Your task to perform on an android device: change notifications settings Image 0: 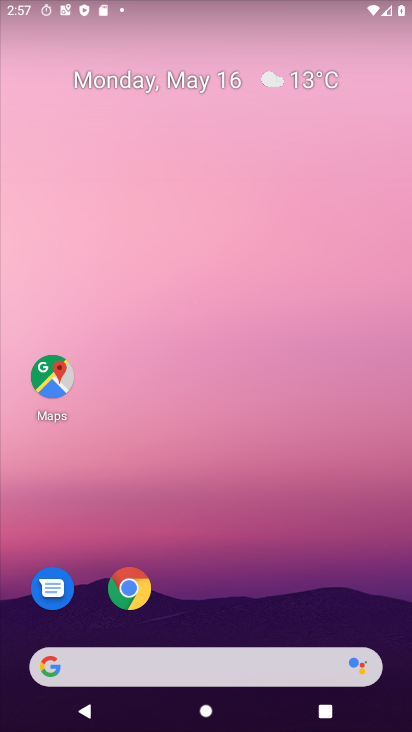
Step 0: drag from (258, 657) to (324, 0)
Your task to perform on an android device: change notifications settings Image 1: 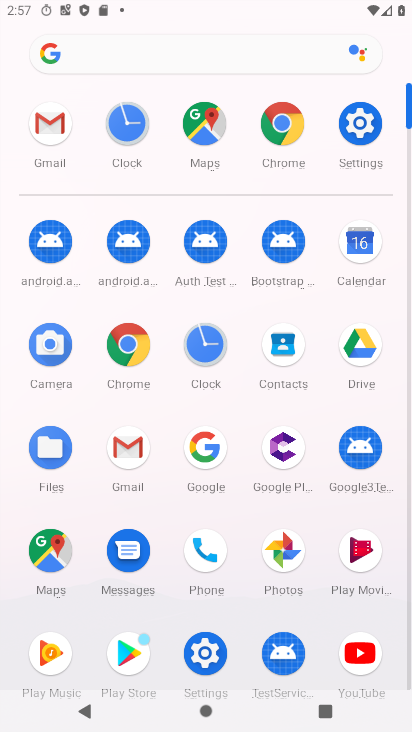
Step 1: click (356, 113)
Your task to perform on an android device: change notifications settings Image 2: 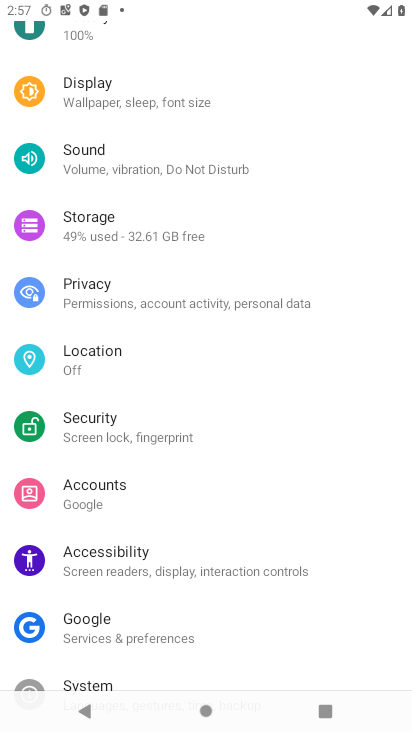
Step 2: drag from (175, 235) to (204, 672)
Your task to perform on an android device: change notifications settings Image 3: 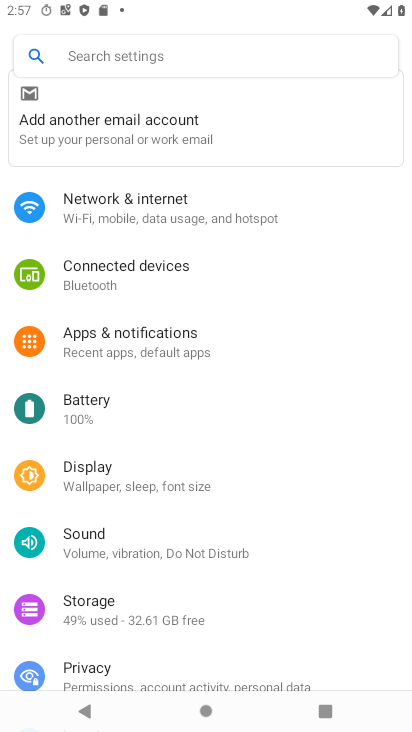
Step 3: click (146, 337)
Your task to perform on an android device: change notifications settings Image 4: 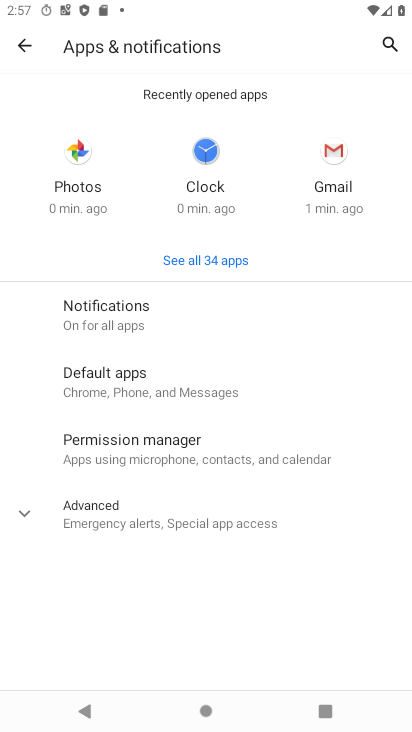
Step 4: click (177, 325)
Your task to perform on an android device: change notifications settings Image 5: 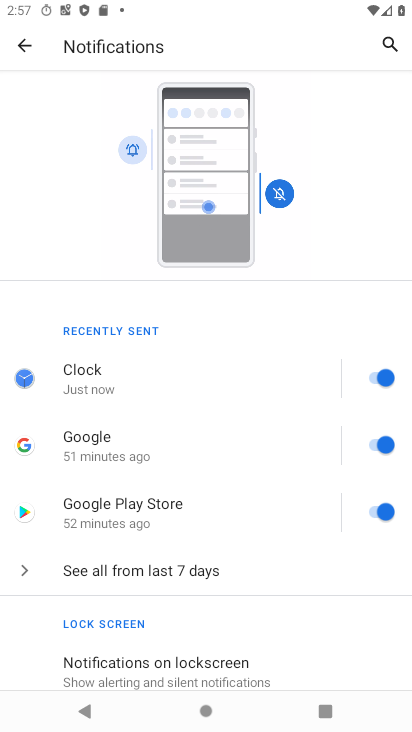
Step 5: click (387, 377)
Your task to perform on an android device: change notifications settings Image 6: 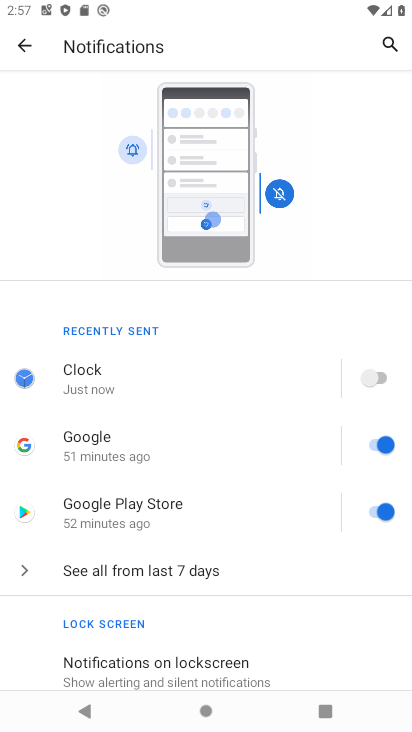
Step 6: click (384, 441)
Your task to perform on an android device: change notifications settings Image 7: 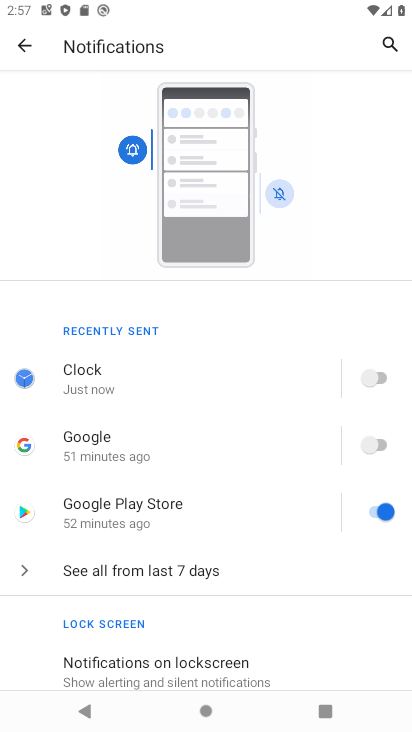
Step 7: click (379, 510)
Your task to perform on an android device: change notifications settings Image 8: 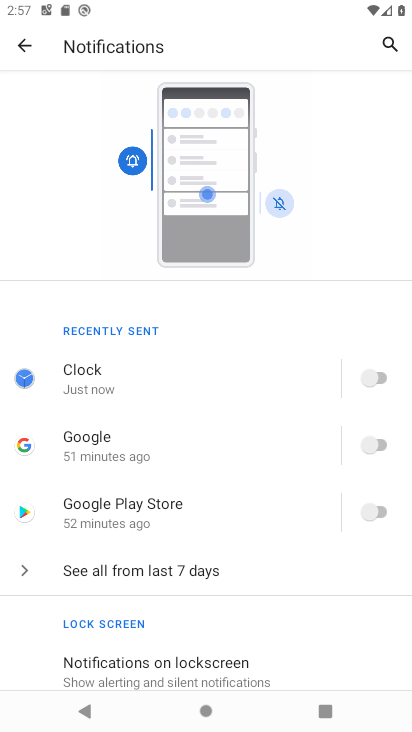
Step 8: task complete